Your task to perform on an android device: Show me the alarms in the clock app Image 0: 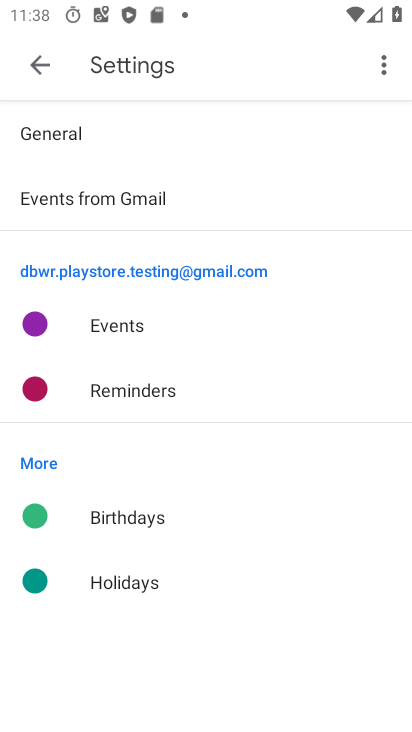
Step 0: press home button
Your task to perform on an android device: Show me the alarms in the clock app Image 1: 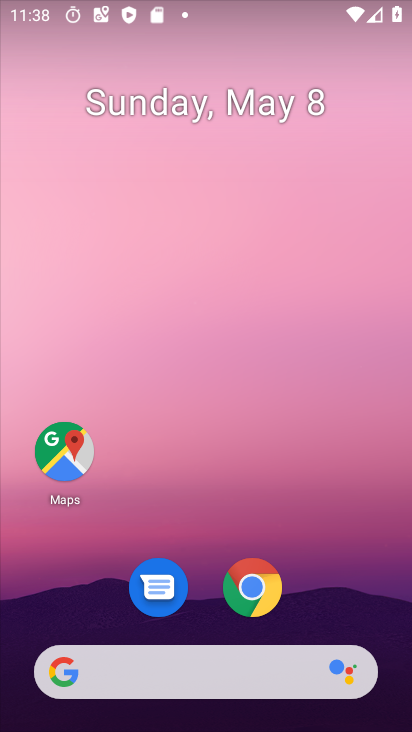
Step 1: drag from (380, 627) to (249, 0)
Your task to perform on an android device: Show me the alarms in the clock app Image 2: 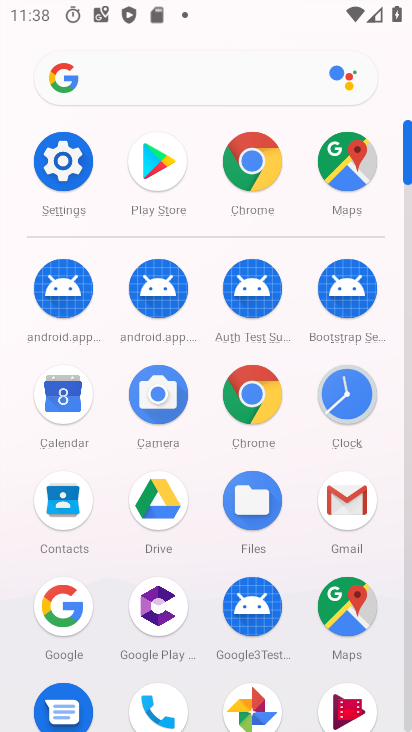
Step 2: click (70, 610)
Your task to perform on an android device: Show me the alarms in the clock app Image 3: 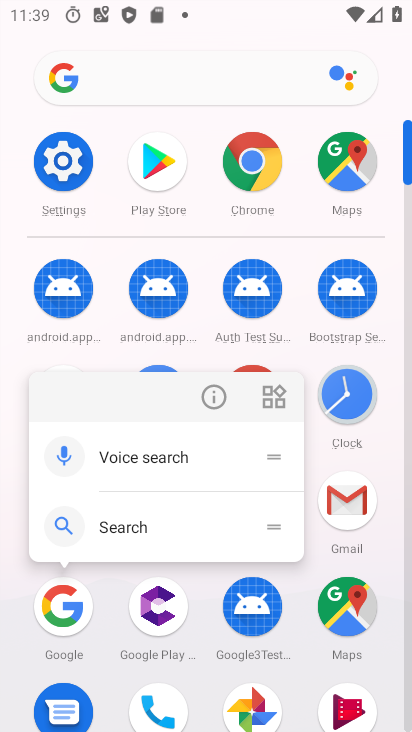
Step 3: click (346, 390)
Your task to perform on an android device: Show me the alarms in the clock app Image 4: 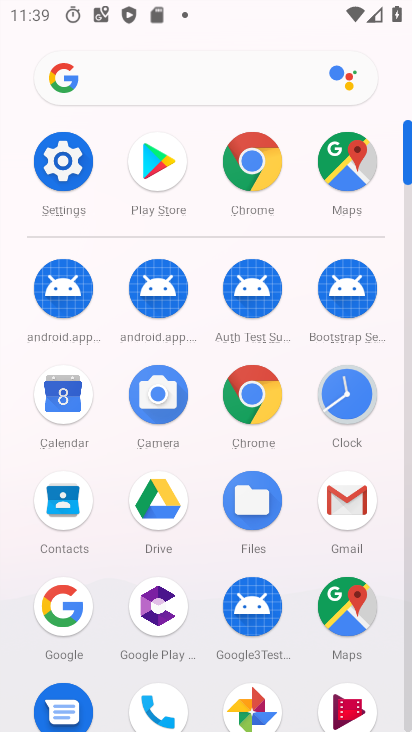
Step 4: click (346, 390)
Your task to perform on an android device: Show me the alarms in the clock app Image 5: 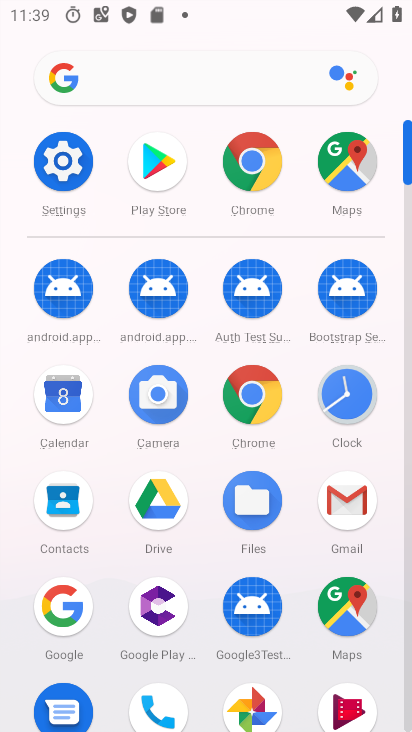
Step 5: click (342, 390)
Your task to perform on an android device: Show me the alarms in the clock app Image 6: 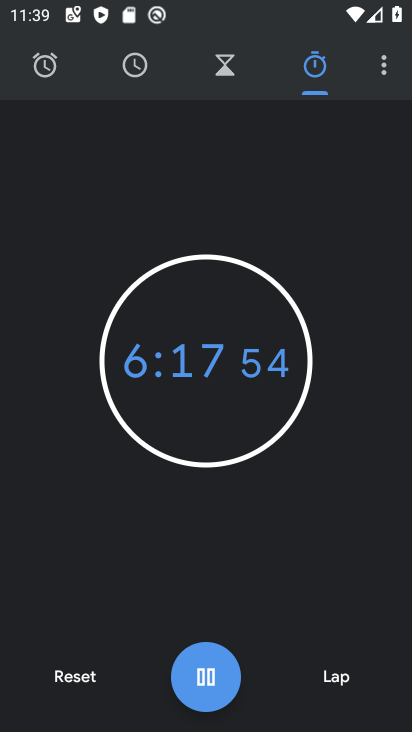
Step 6: click (142, 71)
Your task to perform on an android device: Show me the alarms in the clock app Image 7: 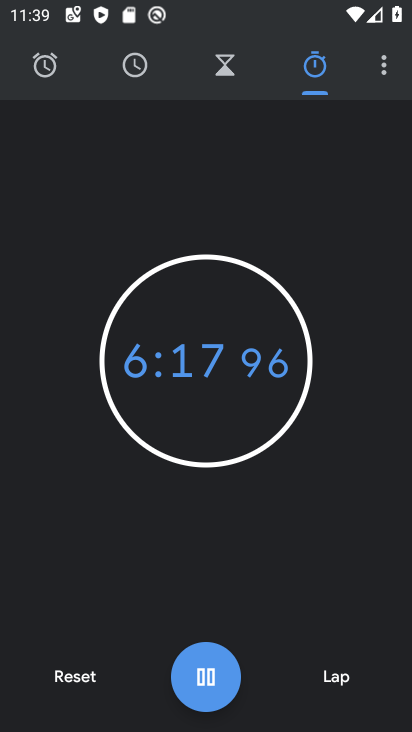
Step 7: click (141, 72)
Your task to perform on an android device: Show me the alarms in the clock app Image 8: 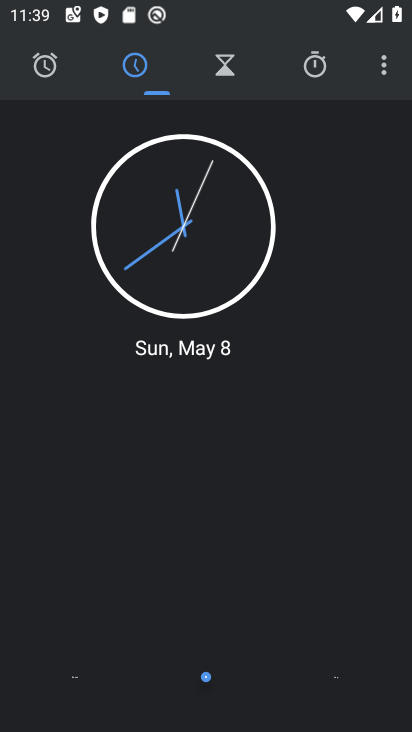
Step 8: click (136, 73)
Your task to perform on an android device: Show me the alarms in the clock app Image 9: 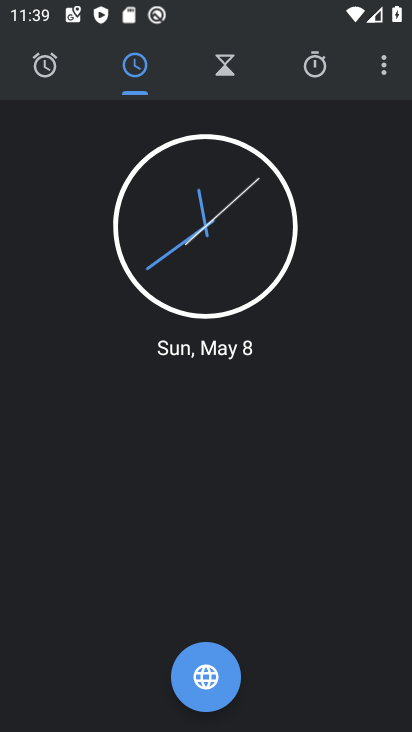
Step 9: click (44, 75)
Your task to perform on an android device: Show me the alarms in the clock app Image 10: 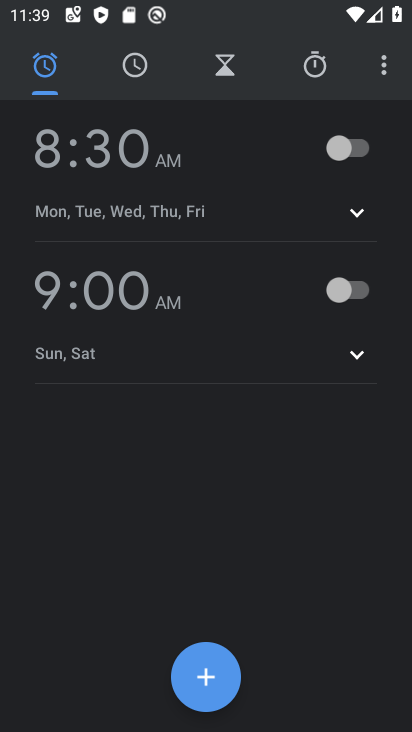
Step 10: click (377, 67)
Your task to perform on an android device: Show me the alarms in the clock app Image 11: 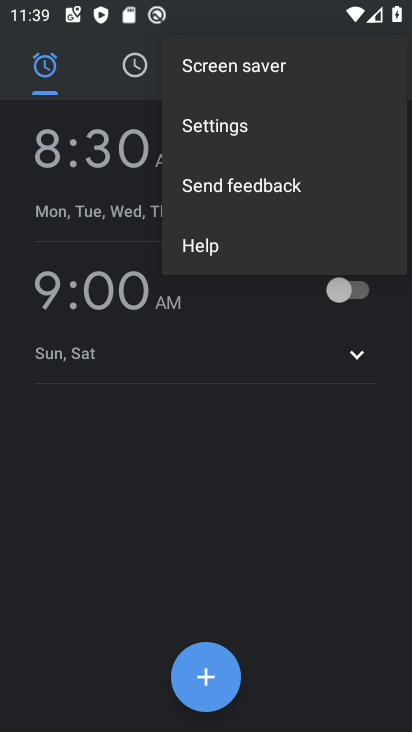
Step 11: click (219, 130)
Your task to perform on an android device: Show me the alarms in the clock app Image 12: 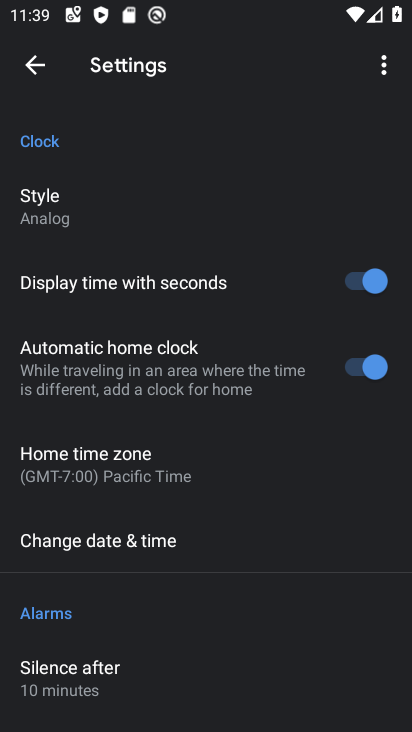
Step 12: click (133, 204)
Your task to perform on an android device: Show me the alarms in the clock app Image 13: 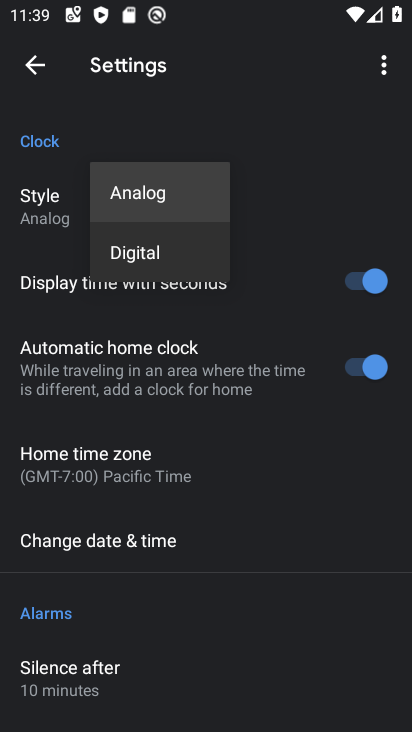
Step 13: click (38, 73)
Your task to perform on an android device: Show me the alarms in the clock app Image 14: 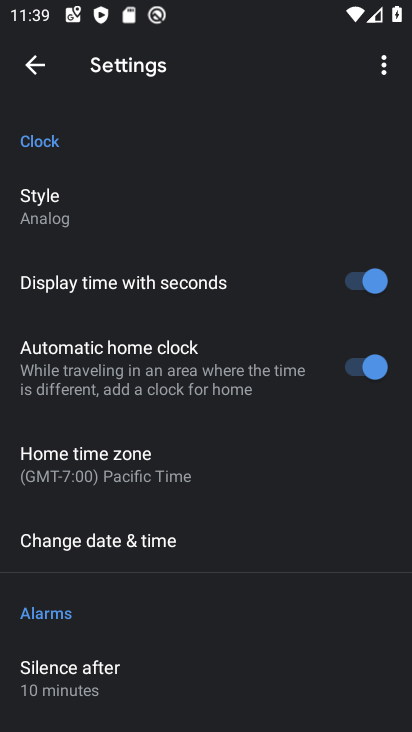
Step 14: click (36, 75)
Your task to perform on an android device: Show me the alarms in the clock app Image 15: 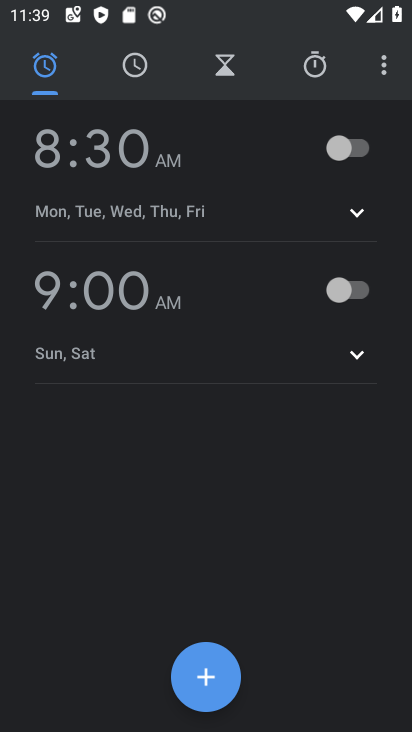
Step 15: click (346, 146)
Your task to perform on an android device: Show me the alarms in the clock app Image 16: 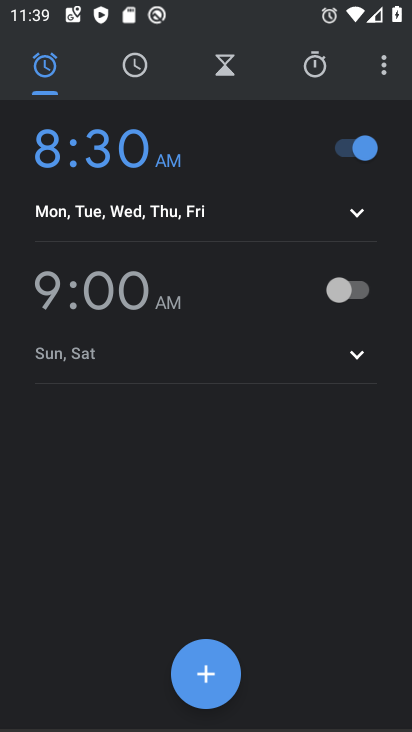
Step 16: task complete